Your task to perform on an android device: choose inbox layout in the gmail app Image 0: 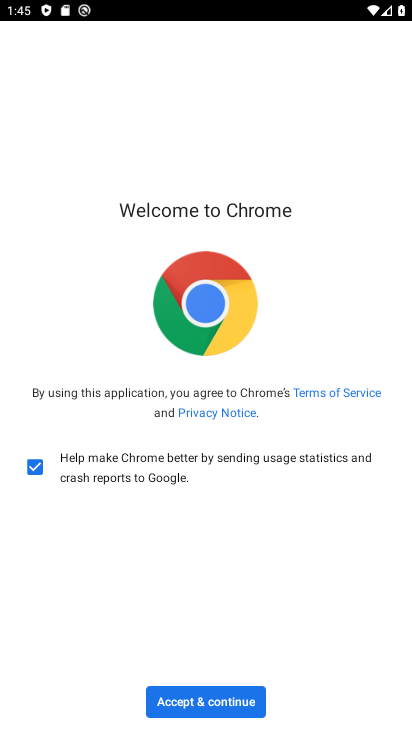
Step 0: press home button
Your task to perform on an android device: choose inbox layout in the gmail app Image 1: 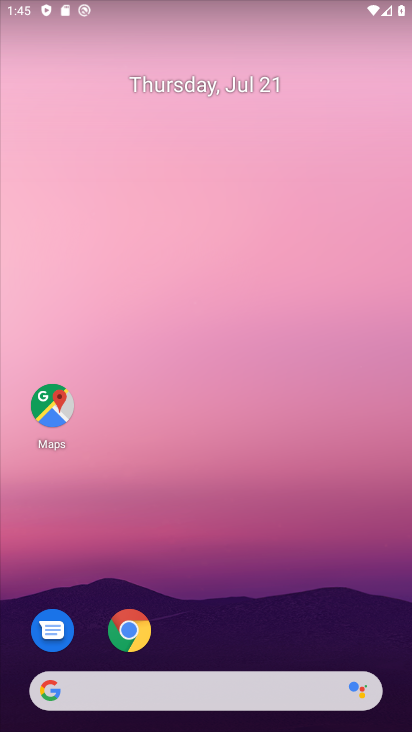
Step 1: drag from (217, 635) to (214, 175)
Your task to perform on an android device: choose inbox layout in the gmail app Image 2: 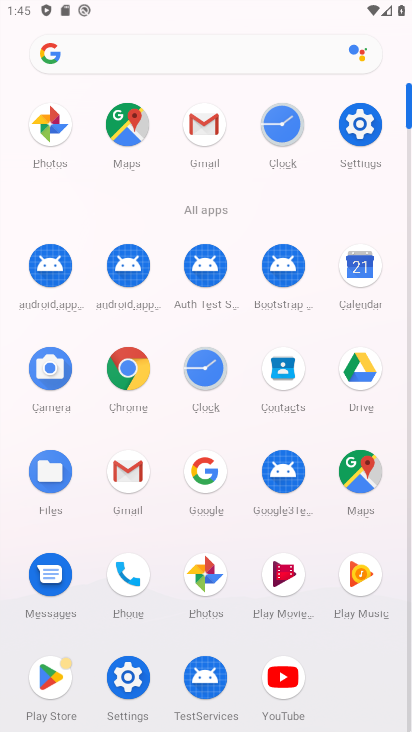
Step 2: click (201, 128)
Your task to perform on an android device: choose inbox layout in the gmail app Image 3: 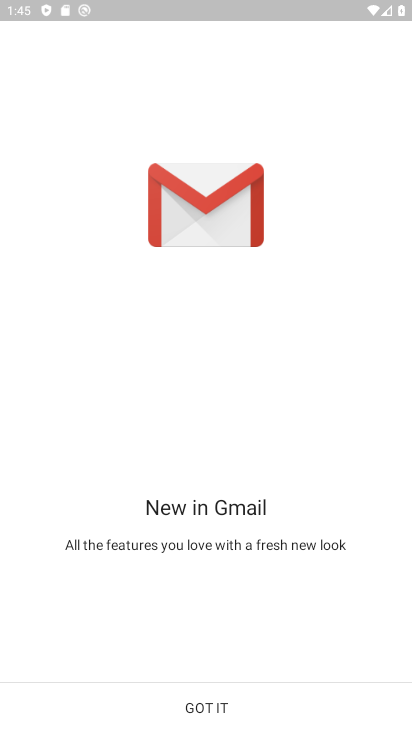
Step 3: click (206, 703)
Your task to perform on an android device: choose inbox layout in the gmail app Image 4: 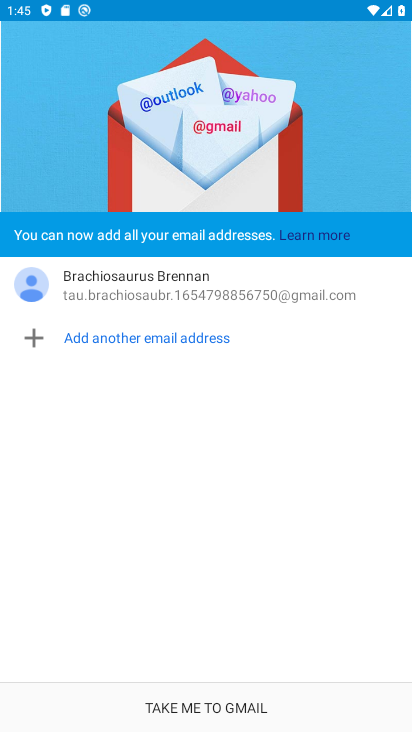
Step 4: click (224, 698)
Your task to perform on an android device: choose inbox layout in the gmail app Image 5: 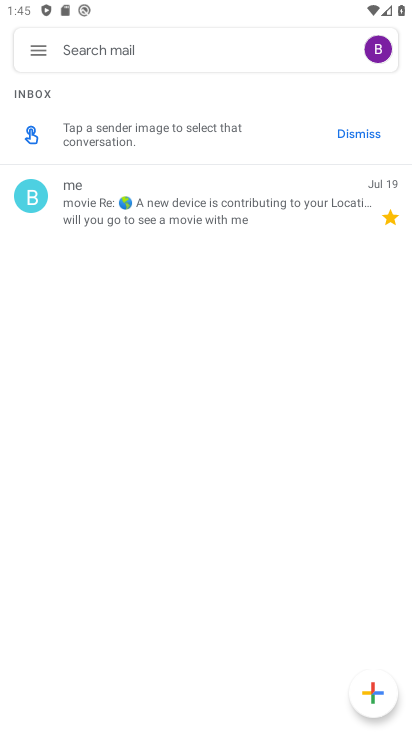
Step 5: click (38, 52)
Your task to perform on an android device: choose inbox layout in the gmail app Image 6: 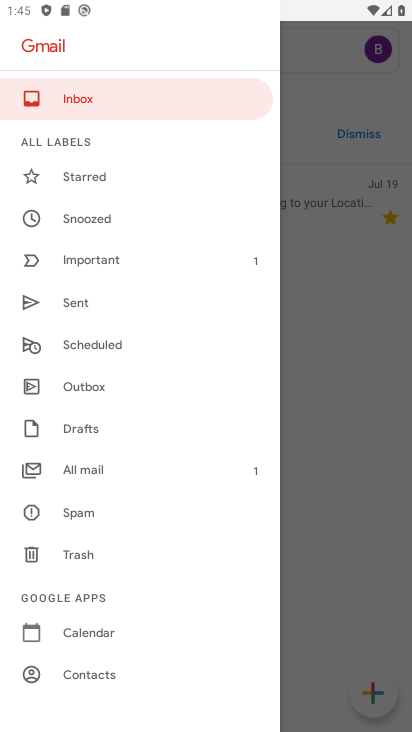
Step 6: drag from (107, 655) to (117, 510)
Your task to perform on an android device: choose inbox layout in the gmail app Image 7: 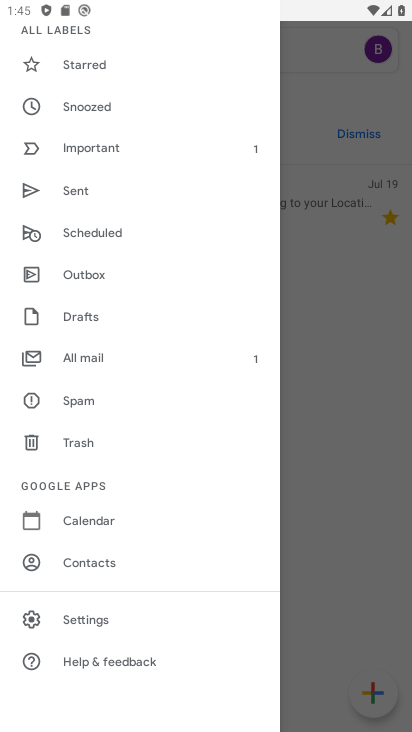
Step 7: click (70, 632)
Your task to perform on an android device: choose inbox layout in the gmail app Image 8: 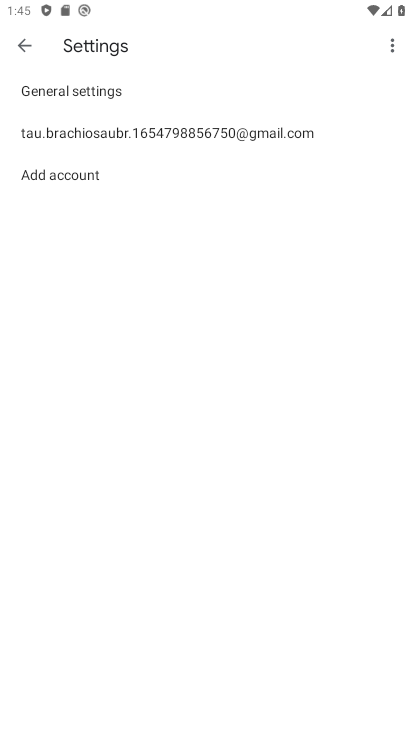
Step 8: click (129, 124)
Your task to perform on an android device: choose inbox layout in the gmail app Image 9: 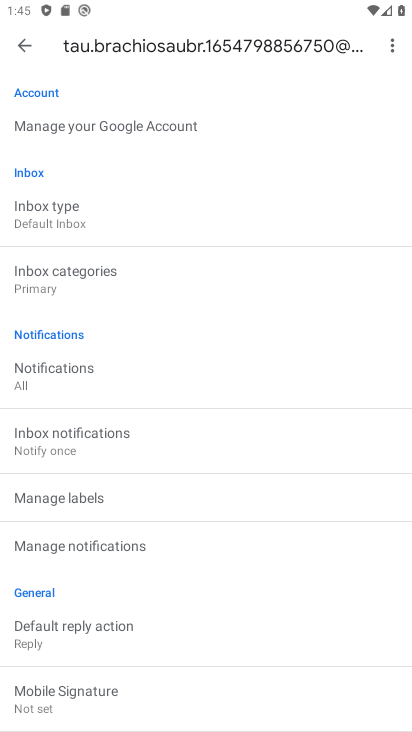
Step 9: click (51, 225)
Your task to perform on an android device: choose inbox layout in the gmail app Image 10: 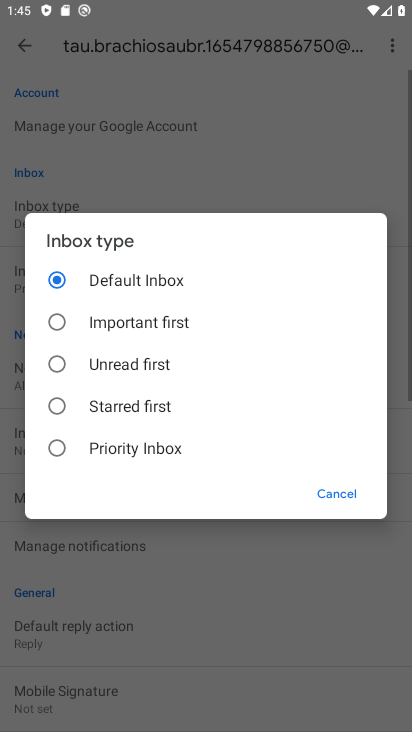
Step 10: click (52, 326)
Your task to perform on an android device: choose inbox layout in the gmail app Image 11: 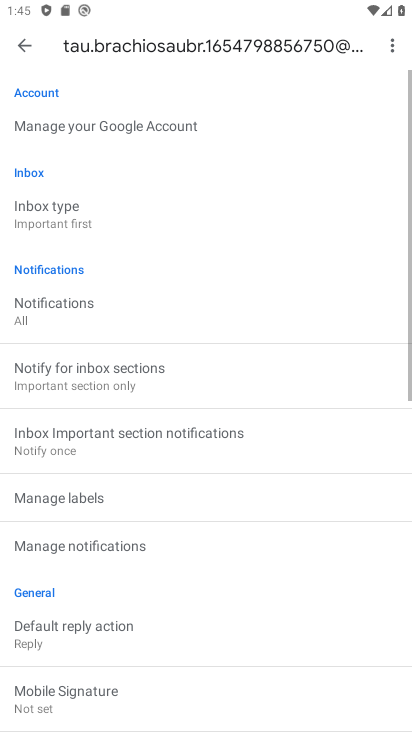
Step 11: task complete